Your task to perform on an android device: Go to ESPN.com Image 0: 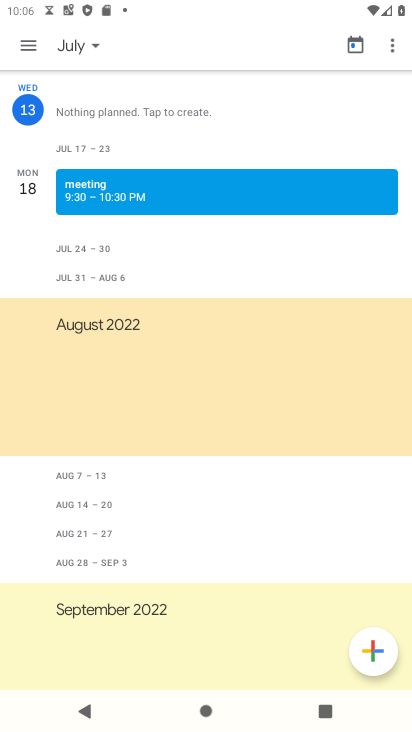
Step 0: press home button
Your task to perform on an android device: Go to ESPN.com Image 1: 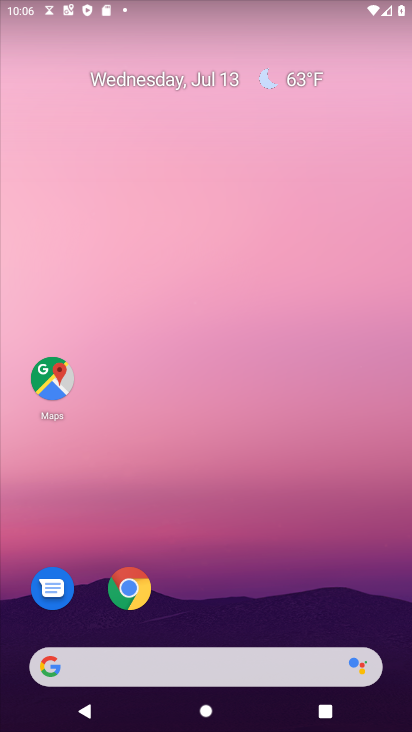
Step 1: drag from (82, 650) to (222, 168)
Your task to perform on an android device: Go to ESPN.com Image 2: 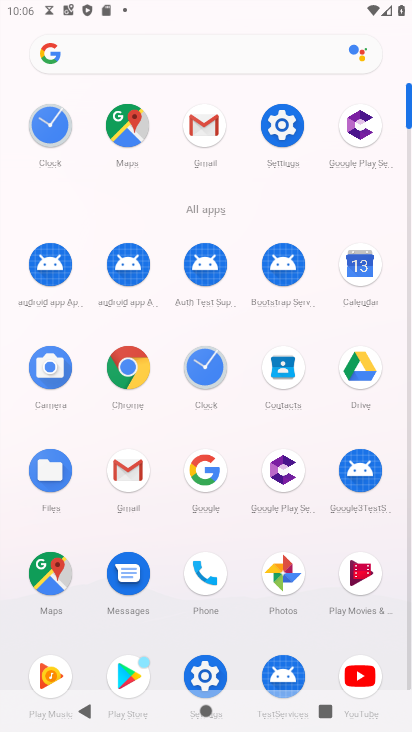
Step 2: click (125, 358)
Your task to perform on an android device: Go to ESPN.com Image 3: 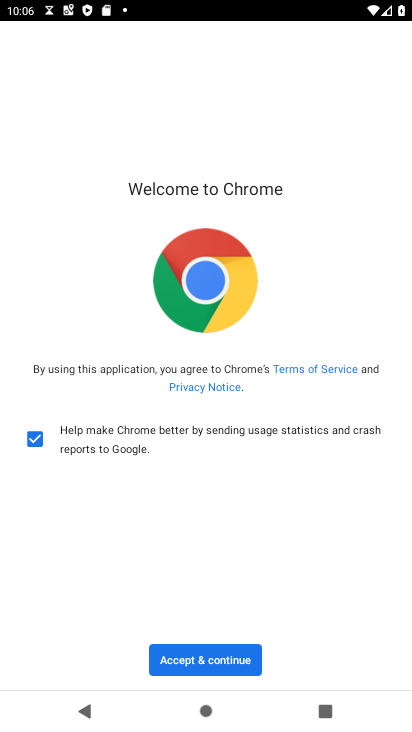
Step 3: click (219, 670)
Your task to perform on an android device: Go to ESPN.com Image 4: 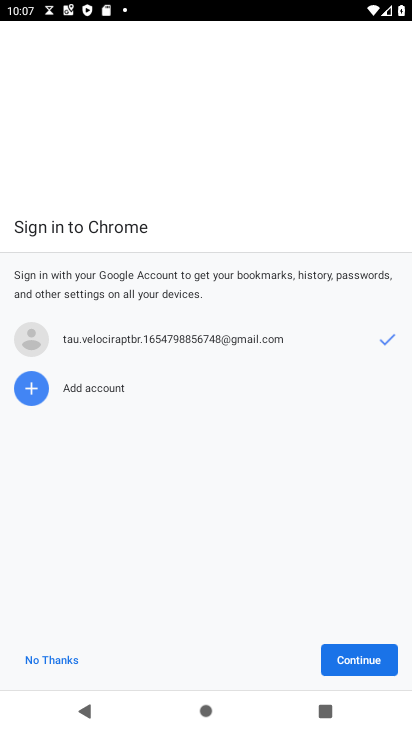
Step 4: click (342, 670)
Your task to perform on an android device: Go to ESPN.com Image 5: 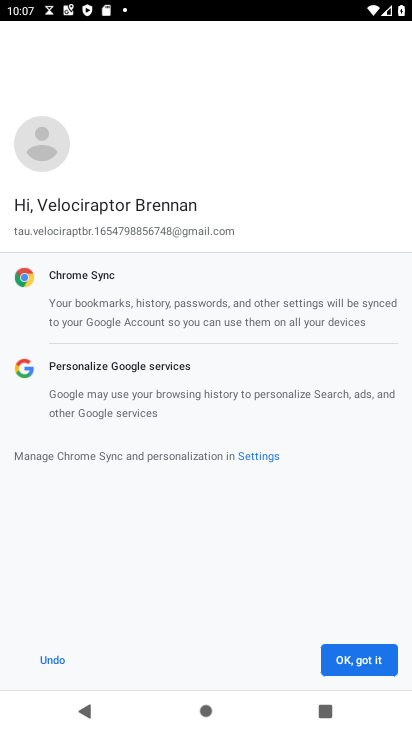
Step 5: click (369, 665)
Your task to perform on an android device: Go to ESPN.com Image 6: 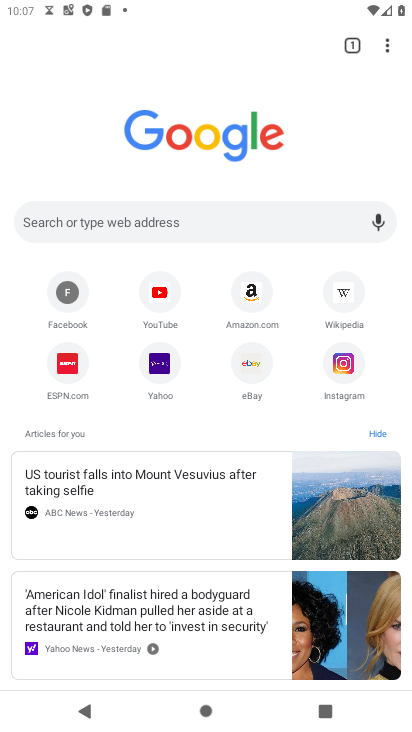
Step 6: click (58, 381)
Your task to perform on an android device: Go to ESPN.com Image 7: 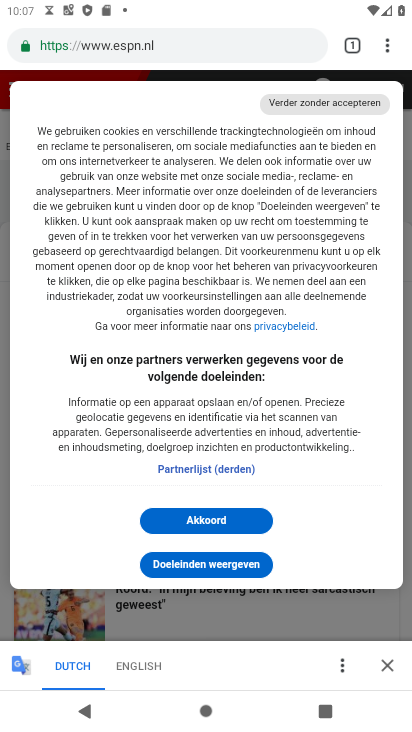
Step 7: task complete